Your task to perform on an android device: manage bookmarks in the chrome app Image 0: 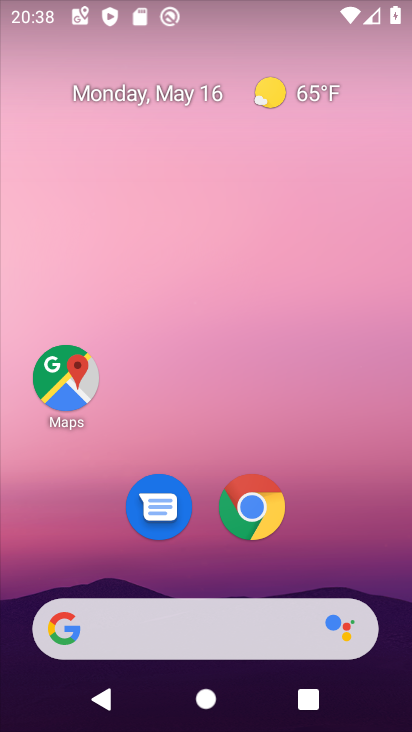
Step 0: click (249, 515)
Your task to perform on an android device: manage bookmarks in the chrome app Image 1: 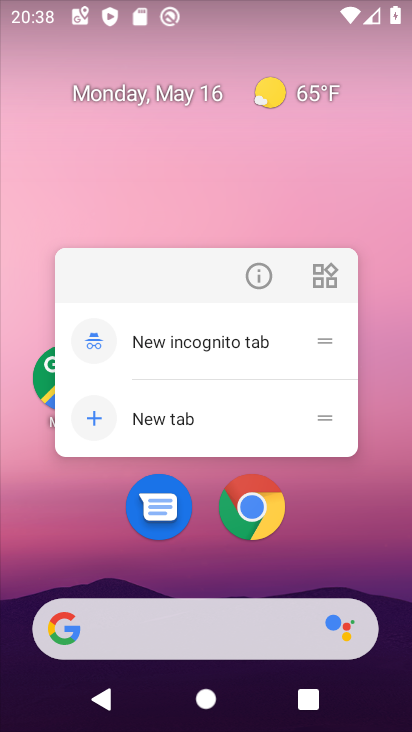
Step 1: click (248, 515)
Your task to perform on an android device: manage bookmarks in the chrome app Image 2: 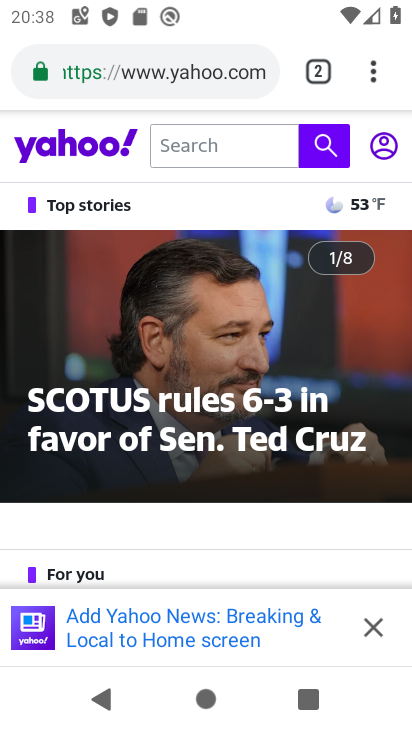
Step 2: click (373, 80)
Your task to perform on an android device: manage bookmarks in the chrome app Image 3: 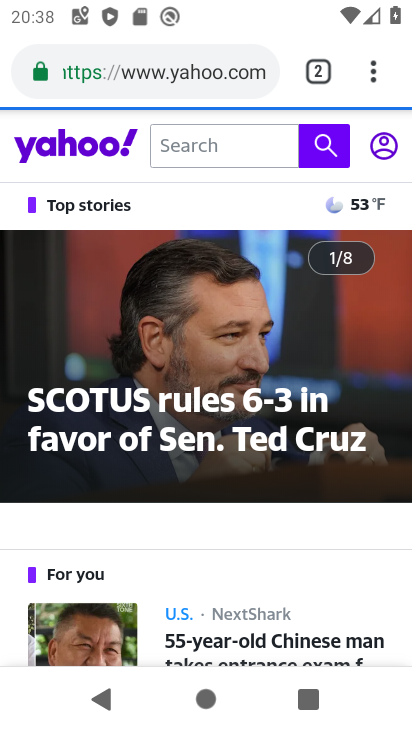
Step 3: task complete